Your task to perform on an android device: Go to ESPN.com Image 0: 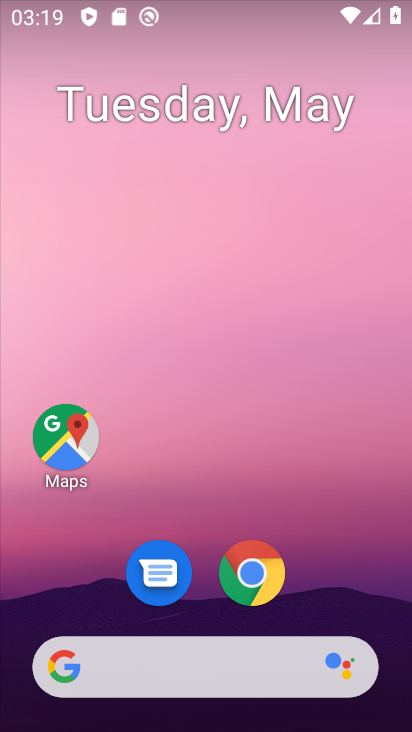
Step 0: click (252, 560)
Your task to perform on an android device: Go to ESPN.com Image 1: 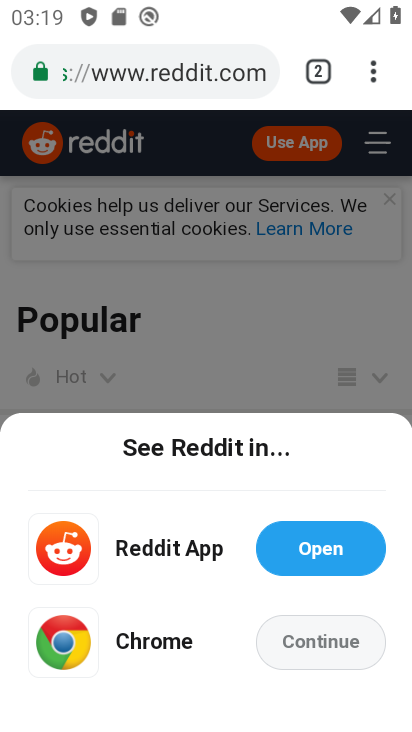
Step 1: click (320, 73)
Your task to perform on an android device: Go to ESPN.com Image 2: 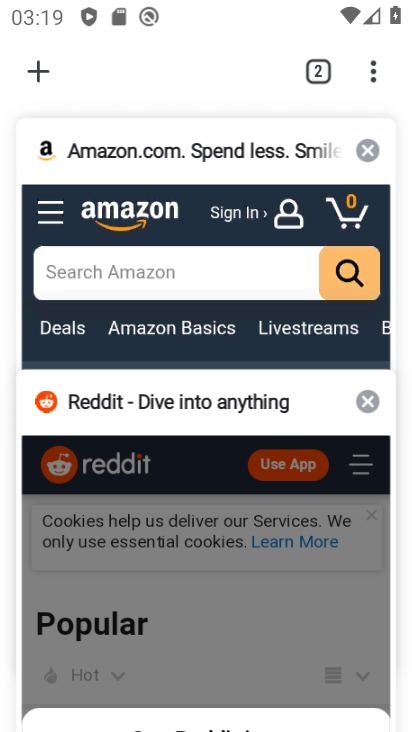
Step 2: click (47, 80)
Your task to perform on an android device: Go to ESPN.com Image 3: 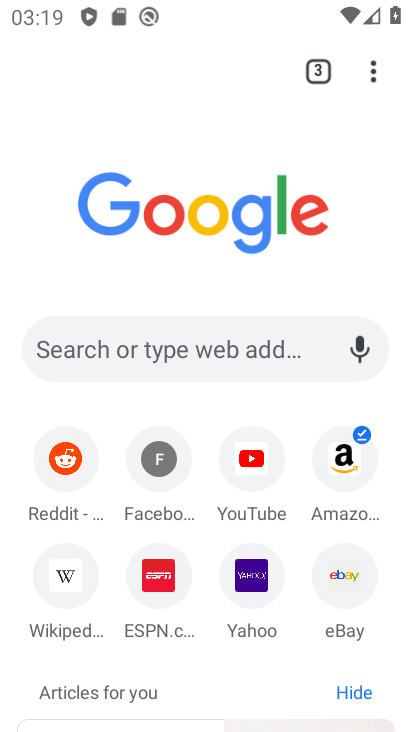
Step 3: click (143, 562)
Your task to perform on an android device: Go to ESPN.com Image 4: 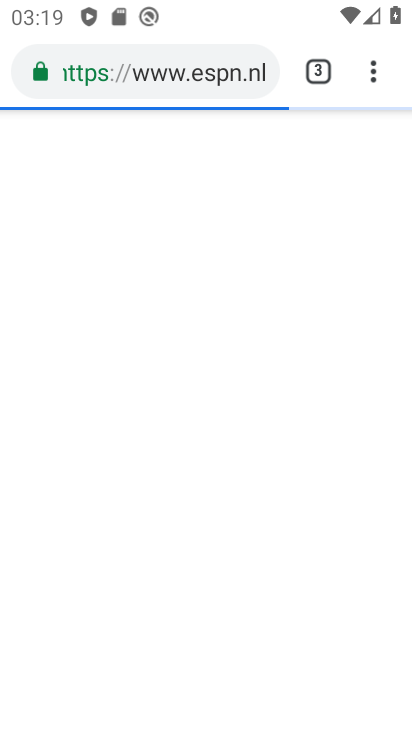
Step 4: task complete